Your task to perform on an android device: Search for sushi restaurants on Maps Image 0: 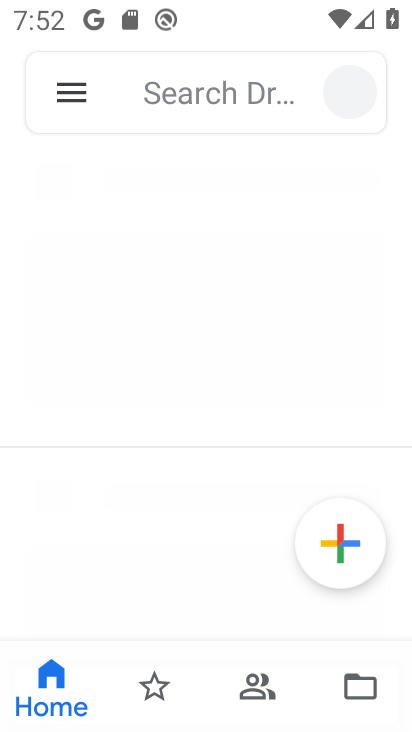
Step 0: press home button
Your task to perform on an android device: Search for sushi restaurants on Maps Image 1: 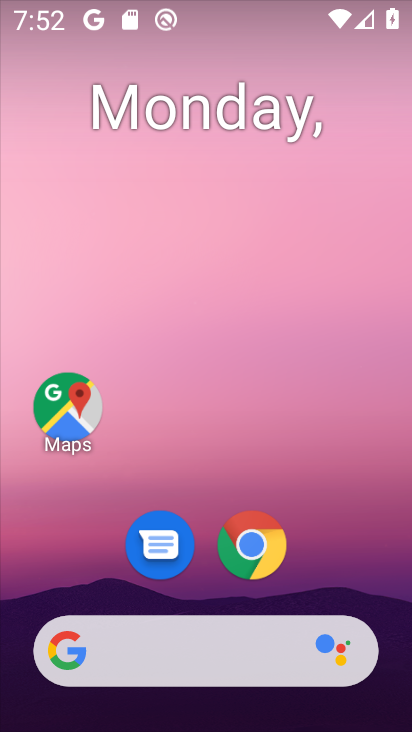
Step 1: click (55, 421)
Your task to perform on an android device: Search for sushi restaurants on Maps Image 2: 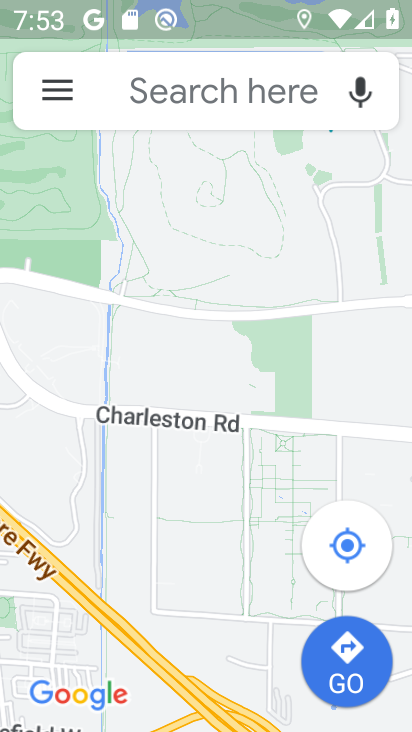
Step 2: click (195, 94)
Your task to perform on an android device: Search for sushi restaurants on Maps Image 3: 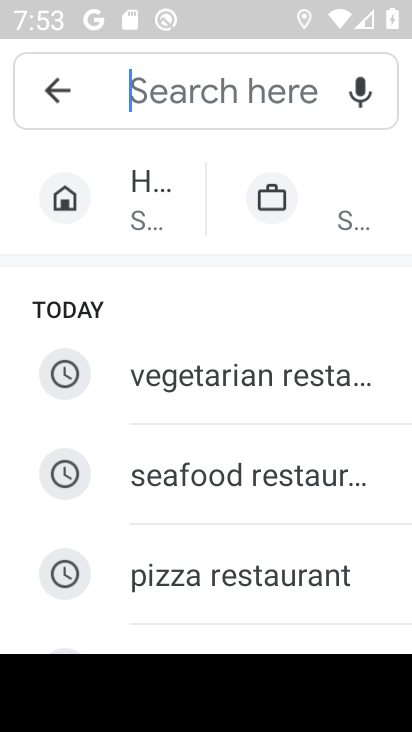
Step 3: drag from (229, 555) to (349, 93)
Your task to perform on an android device: Search for sushi restaurants on Maps Image 4: 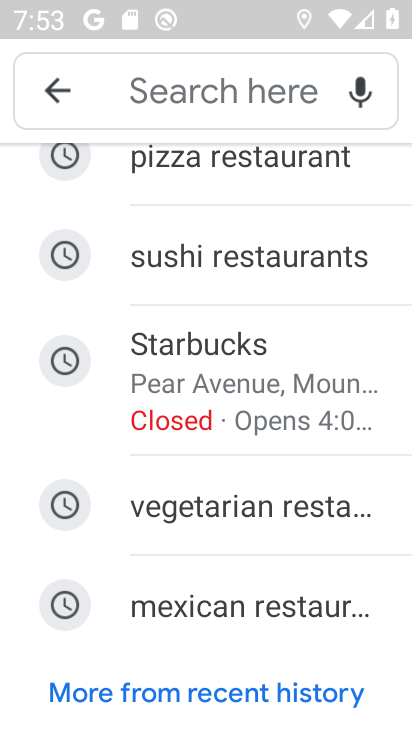
Step 4: click (252, 260)
Your task to perform on an android device: Search for sushi restaurants on Maps Image 5: 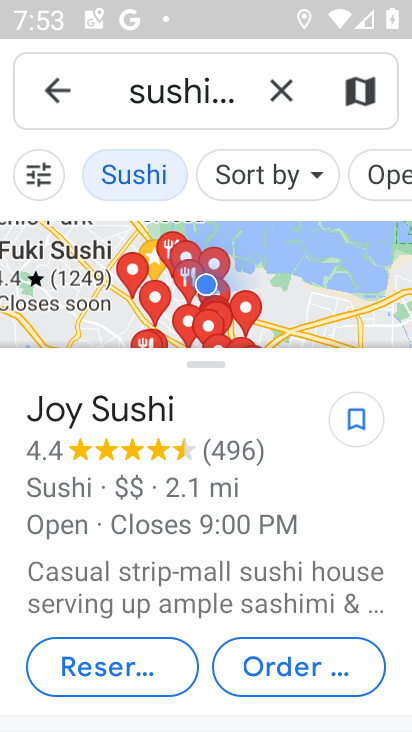
Step 5: task complete